Your task to perform on an android device: Show me recent news Image 0: 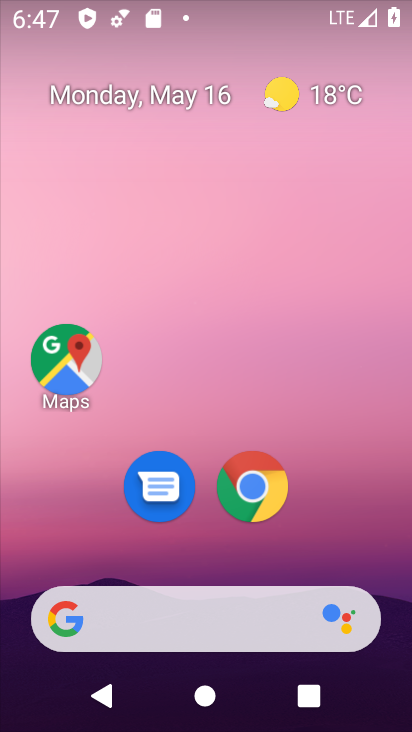
Step 0: drag from (14, 225) to (355, 239)
Your task to perform on an android device: Show me recent news Image 1: 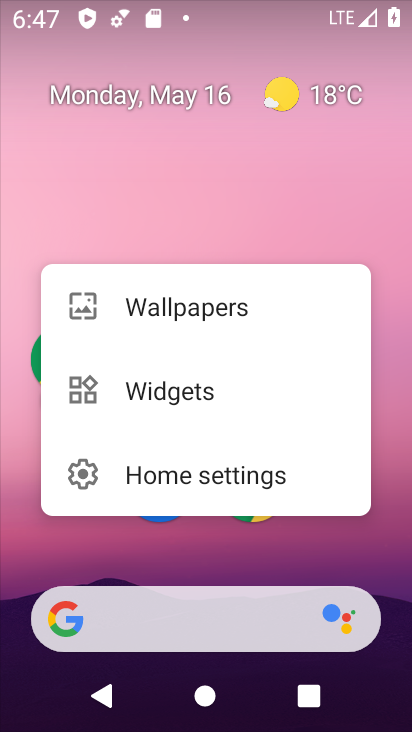
Step 1: click (125, 153)
Your task to perform on an android device: Show me recent news Image 2: 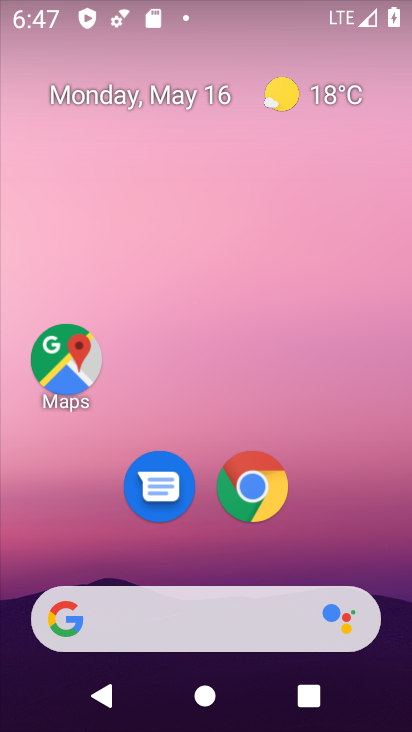
Step 2: task complete